Your task to perform on an android device: Search for Italian restaurants on Maps Image 0: 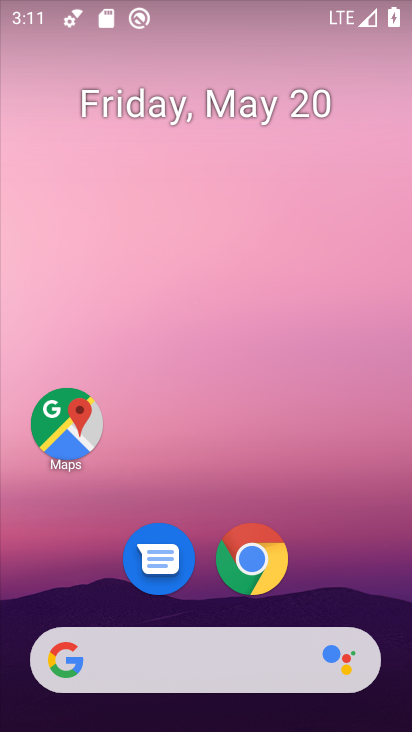
Step 0: click (58, 420)
Your task to perform on an android device: Search for Italian restaurants on Maps Image 1: 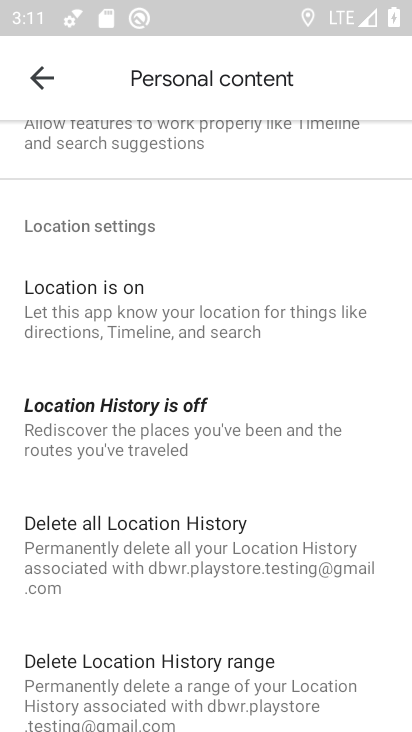
Step 1: click (36, 67)
Your task to perform on an android device: Search for Italian restaurants on Maps Image 2: 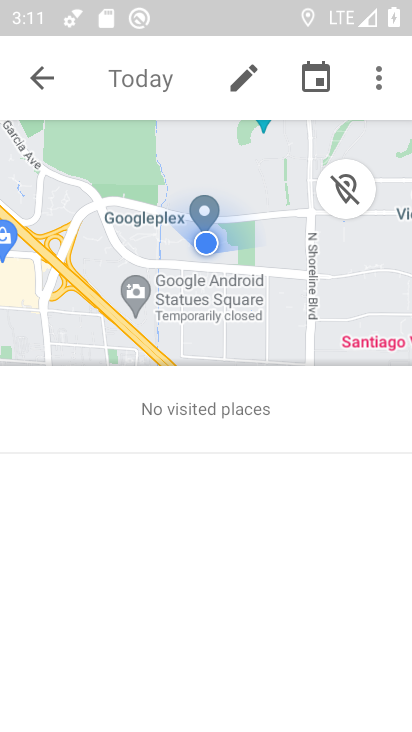
Step 2: click (36, 67)
Your task to perform on an android device: Search for Italian restaurants on Maps Image 3: 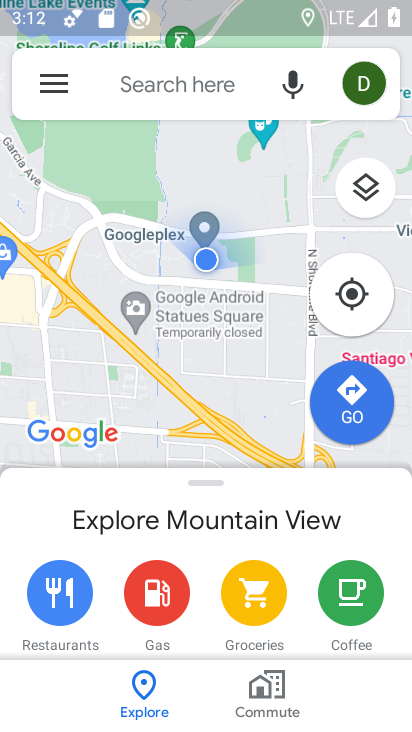
Step 3: click (160, 83)
Your task to perform on an android device: Search for Italian restaurants on Maps Image 4: 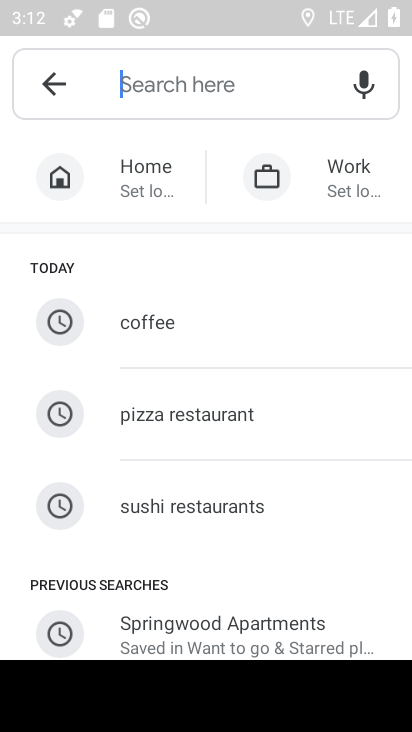
Step 4: type "italian restaurants"
Your task to perform on an android device: Search for Italian restaurants on Maps Image 5: 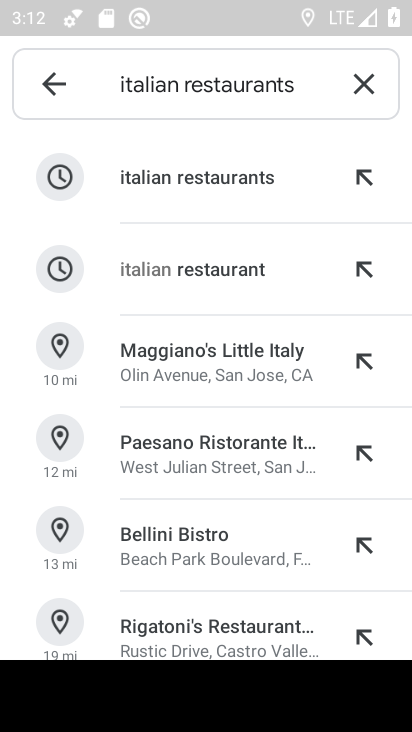
Step 5: click (248, 169)
Your task to perform on an android device: Search for Italian restaurants on Maps Image 6: 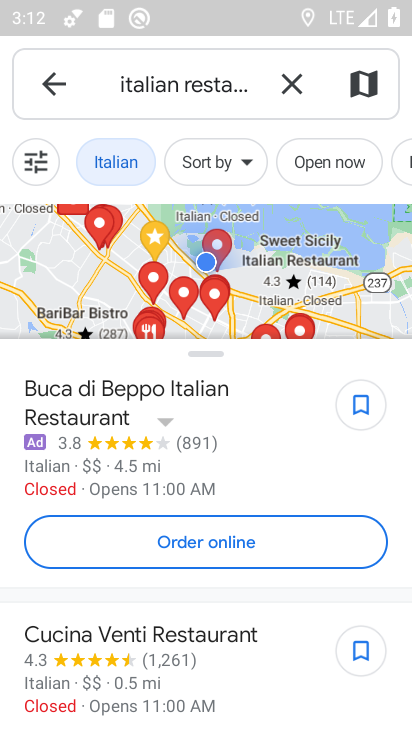
Step 6: task complete